Your task to perform on an android device: Show me popular videos on Youtube Image 0: 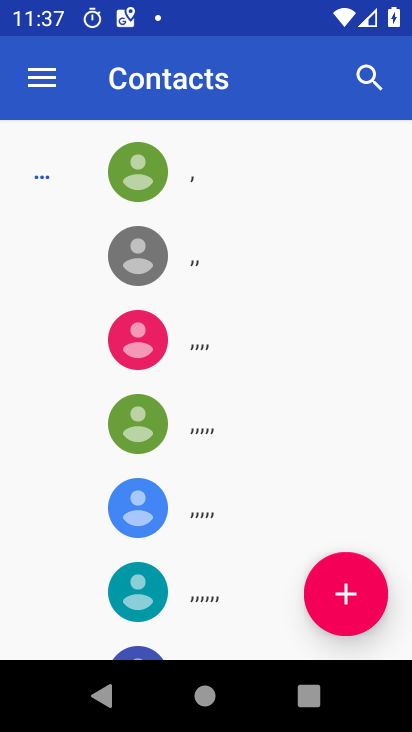
Step 0: press home button
Your task to perform on an android device: Show me popular videos on Youtube Image 1: 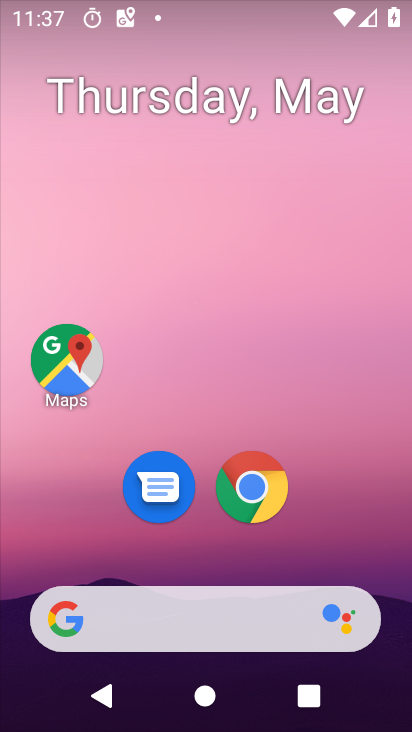
Step 1: drag from (316, 539) to (305, 81)
Your task to perform on an android device: Show me popular videos on Youtube Image 2: 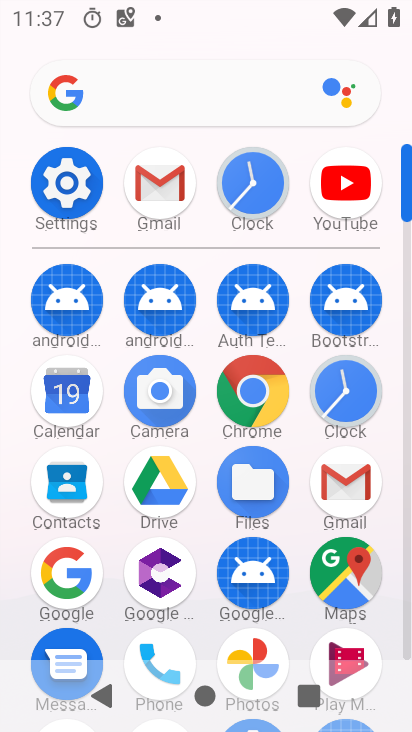
Step 2: click (352, 184)
Your task to perform on an android device: Show me popular videos on Youtube Image 3: 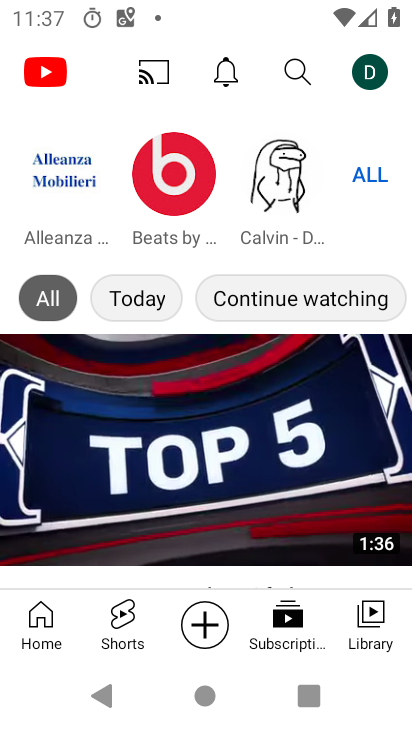
Step 3: click (294, 79)
Your task to perform on an android device: Show me popular videos on Youtube Image 4: 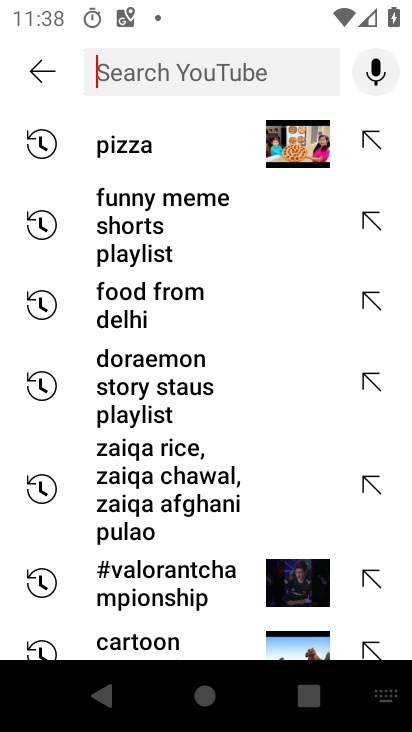
Step 4: type "populat videos"
Your task to perform on an android device: Show me popular videos on Youtube Image 5: 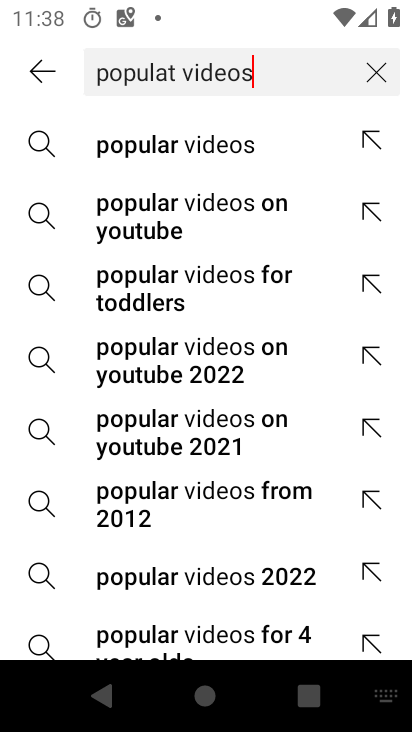
Step 5: click (224, 220)
Your task to perform on an android device: Show me popular videos on Youtube Image 6: 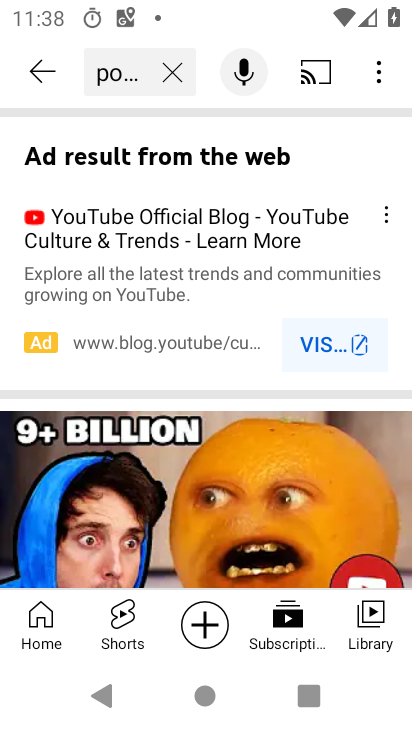
Step 6: task complete